Your task to perform on an android device: Open Android settings Image 0: 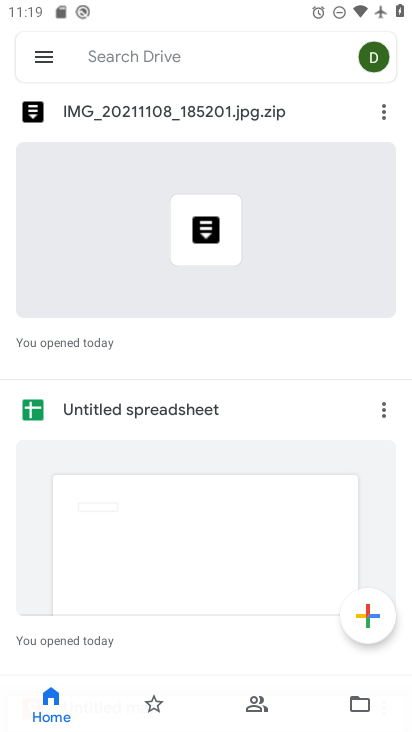
Step 0: press home button
Your task to perform on an android device: Open Android settings Image 1: 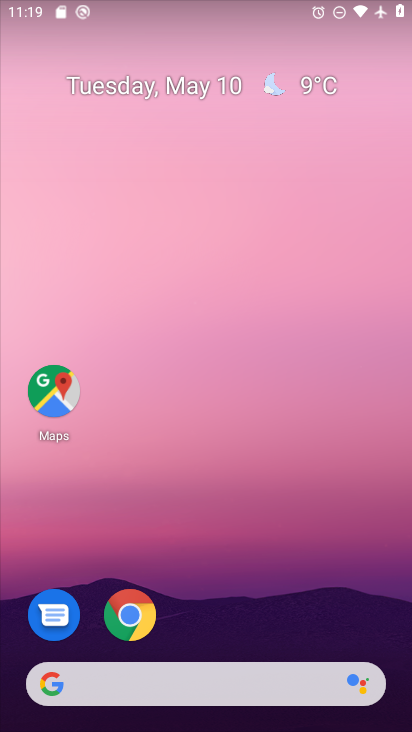
Step 1: drag from (368, 624) to (226, 62)
Your task to perform on an android device: Open Android settings Image 2: 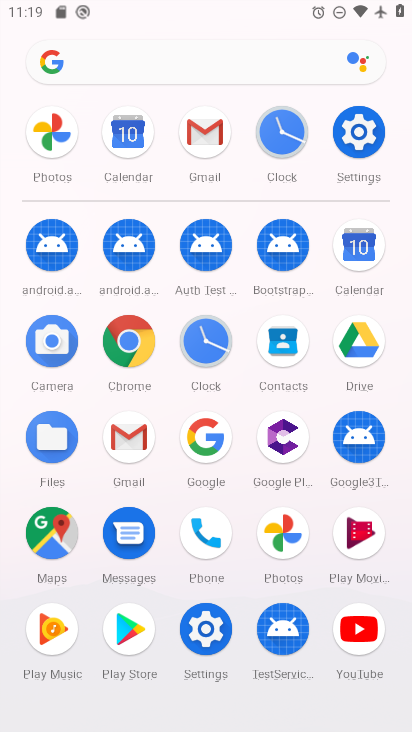
Step 2: click (196, 628)
Your task to perform on an android device: Open Android settings Image 3: 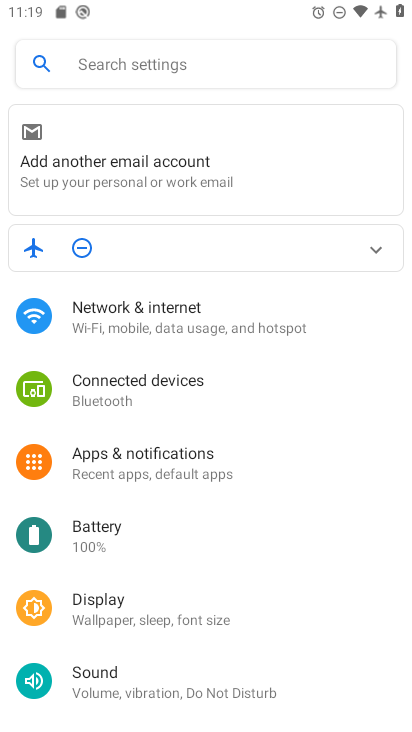
Step 3: drag from (286, 651) to (290, 221)
Your task to perform on an android device: Open Android settings Image 4: 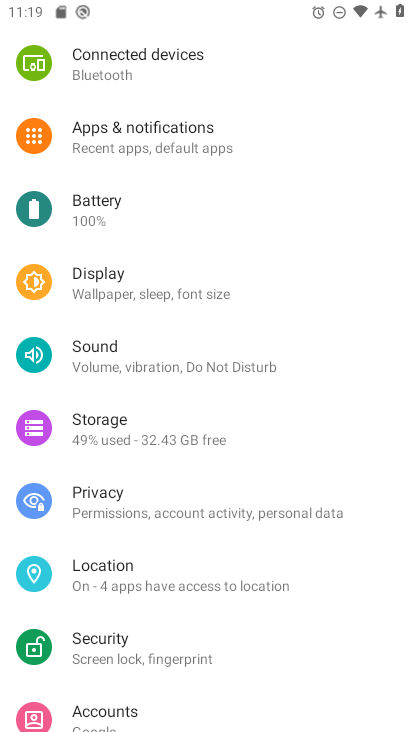
Step 4: drag from (288, 631) to (328, 168)
Your task to perform on an android device: Open Android settings Image 5: 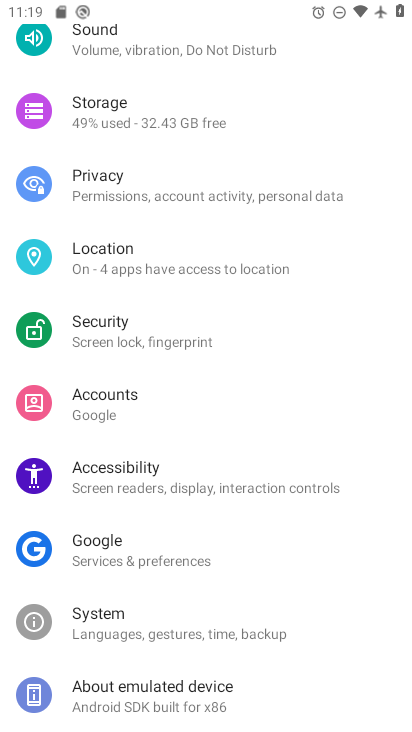
Step 5: click (139, 692)
Your task to perform on an android device: Open Android settings Image 6: 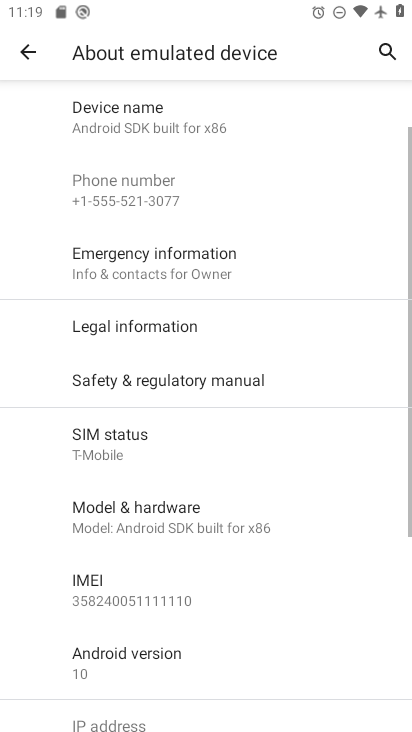
Step 6: task complete